Your task to perform on an android device: stop showing notifications on the lock screen Image 0: 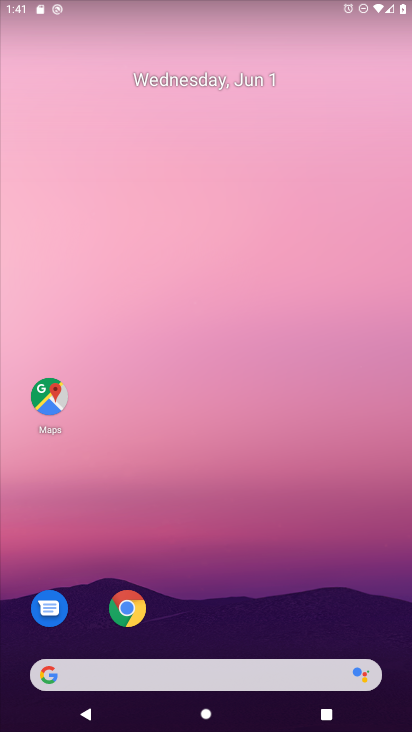
Step 0: drag from (207, 605) to (210, 129)
Your task to perform on an android device: stop showing notifications on the lock screen Image 1: 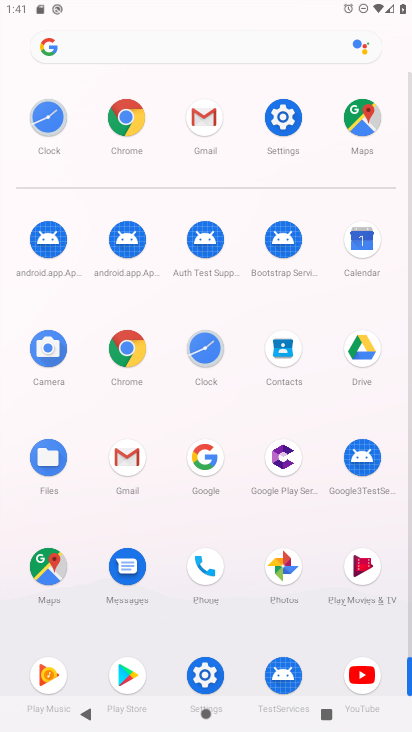
Step 1: click (281, 120)
Your task to perform on an android device: stop showing notifications on the lock screen Image 2: 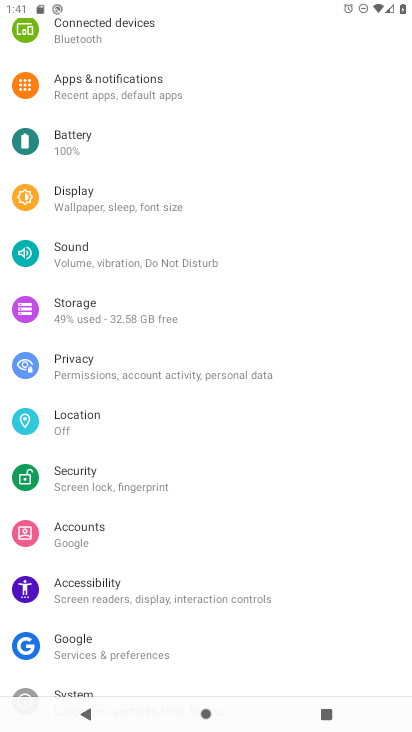
Step 2: click (104, 90)
Your task to perform on an android device: stop showing notifications on the lock screen Image 3: 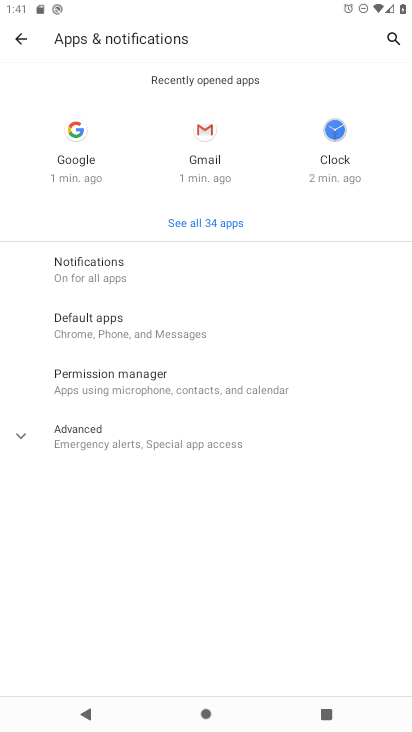
Step 3: click (87, 275)
Your task to perform on an android device: stop showing notifications on the lock screen Image 4: 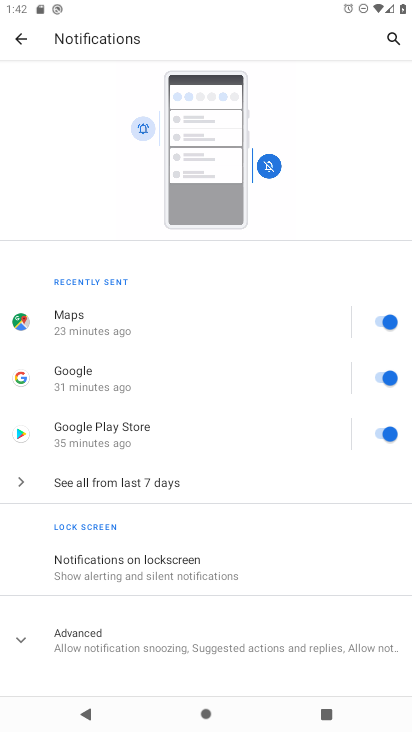
Step 4: drag from (188, 537) to (190, 382)
Your task to perform on an android device: stop showing notifications on the lock screen Image 5: 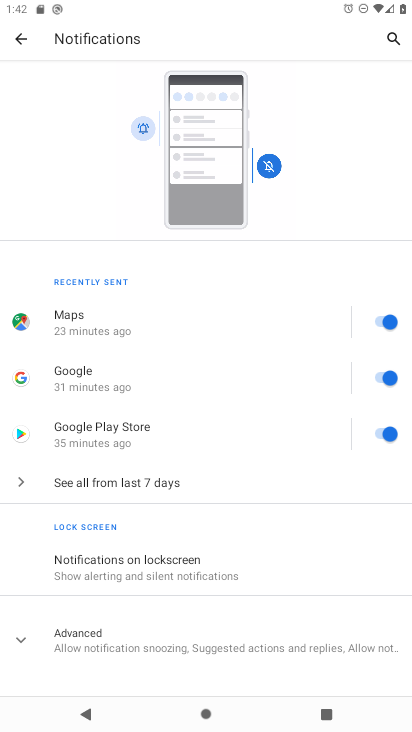
Step 5: click (153, 573)
Your task to perform on an android device: stop showing notifications on the lock screen Image 6: 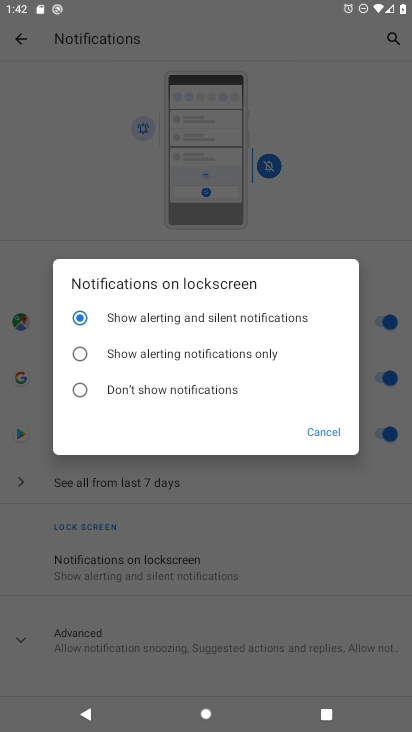
Step 6: click (74, 388)
Your task to perform on an android device: stop showing notifications on the lock screen Image 7: 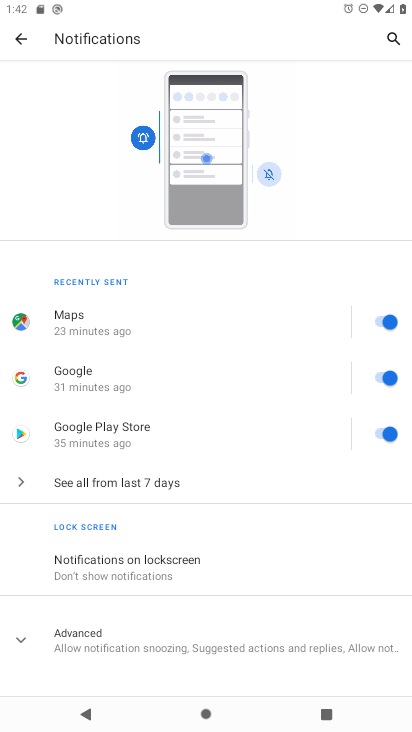
Step 7: task complete